Your task to perform on an android device: turn off notifications settings in the gmail app Image 0: 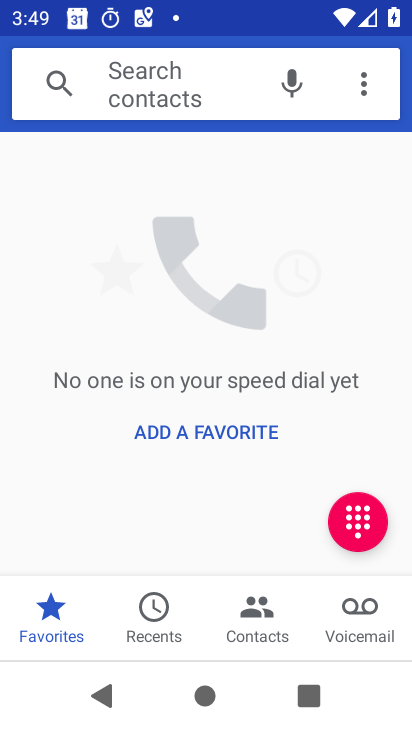
Step 0: press home button
Your task to perform on an android device: turn off notifications settings in the gmail app Image 1: 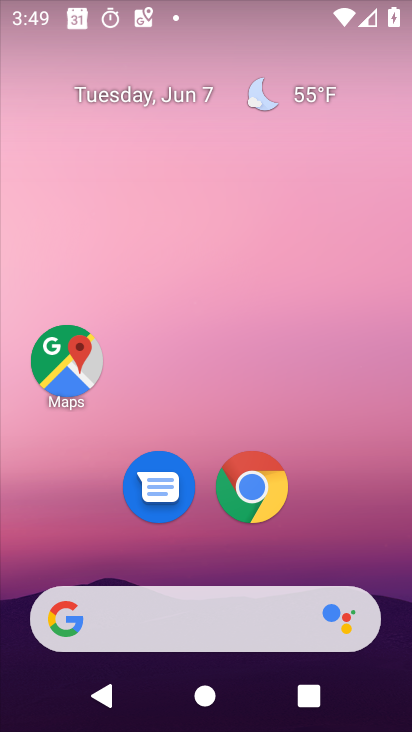
Step 1: drag from (194, 551) to (137, 121)
Your task to perform on an android device: turn off notifications settings in the gmail app Image 2: 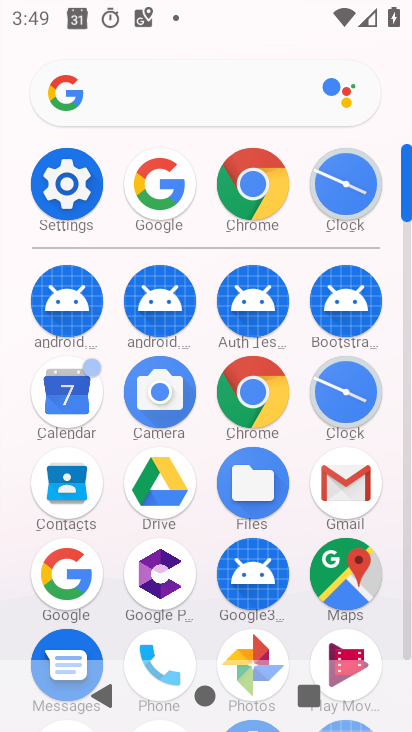
Step 2: click (343, 487)
Your task to perform on an android device: turn off notifications settings in the gmail app Image 3: 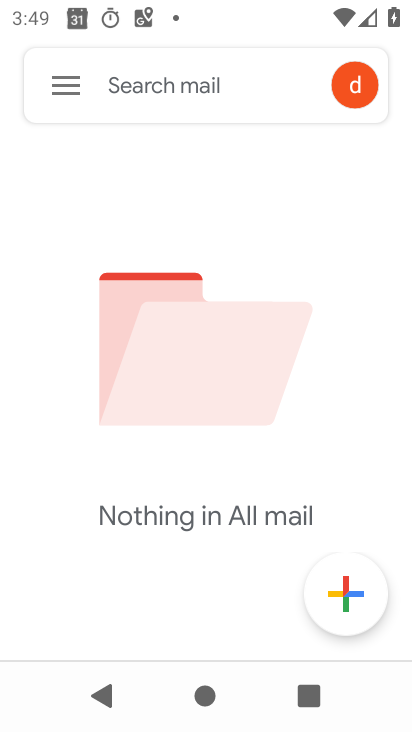
Step 3: click (70, 84)
Your task to perform on an android device: turn off notifications settings in the gmail app Image 4: 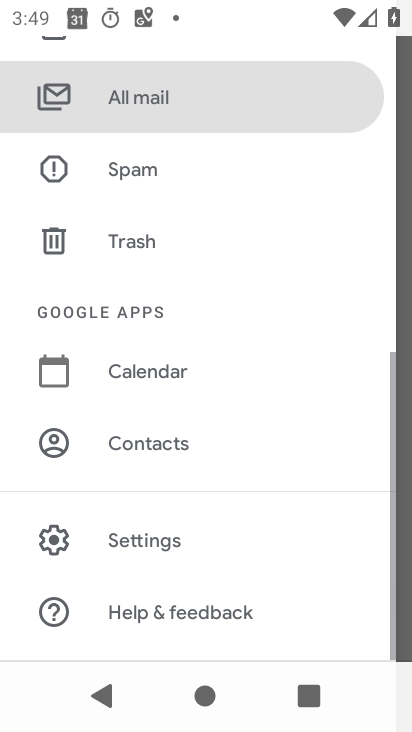
Step 4: click (167, 557)
Your task to perform on an android device: turn off notifications settings in the gmail app Image 5: 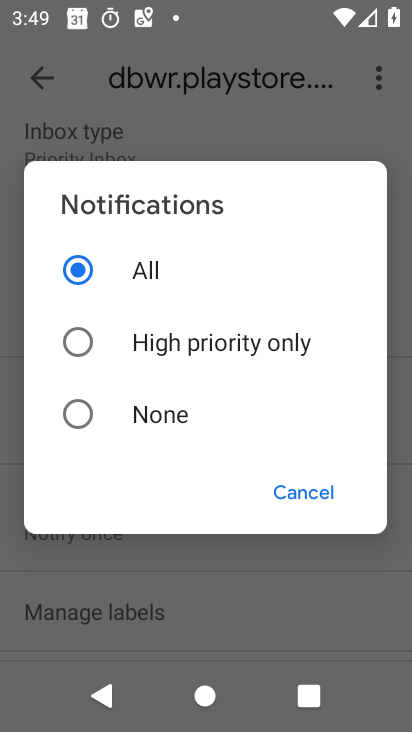
Step 5: click (123, 414)
Your task to perform on an android device: turn off notifications settings in the gmail app Image 6: 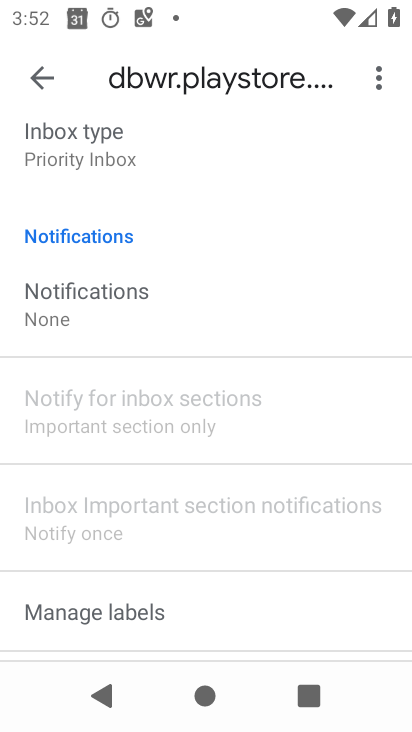
Step 6: task complete